Your task to perform on an android device: What's the weather going to be tomorrow? Image 0: 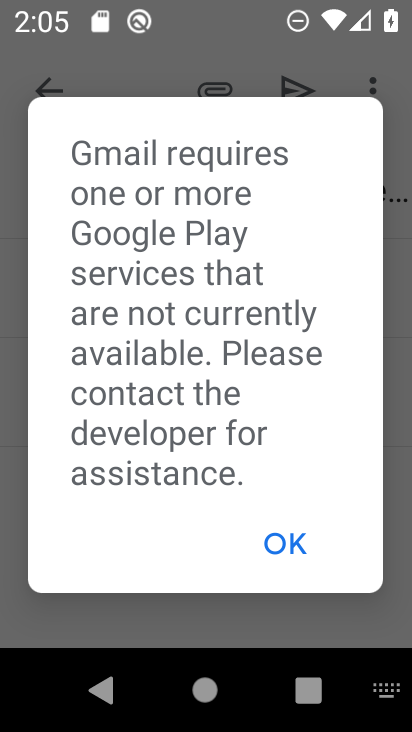
Step 0: click (163, 614)
Your task to perform on an android device: What's the weather going to be tomorrow? Image 1: 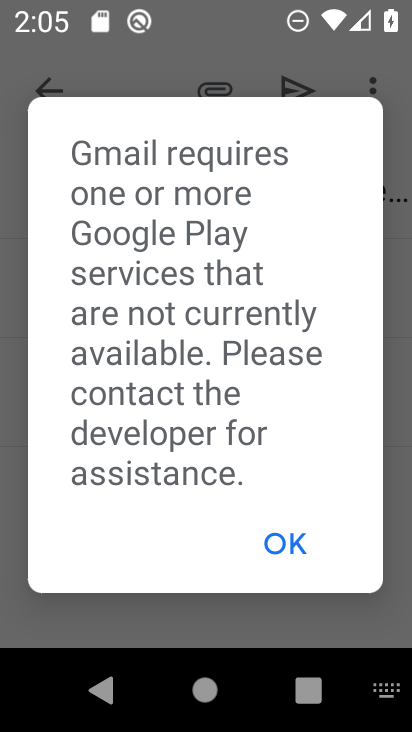
Step 1: press home button
Your task to perform on an android device: What's the weather going to be tomorrow? Image 2: 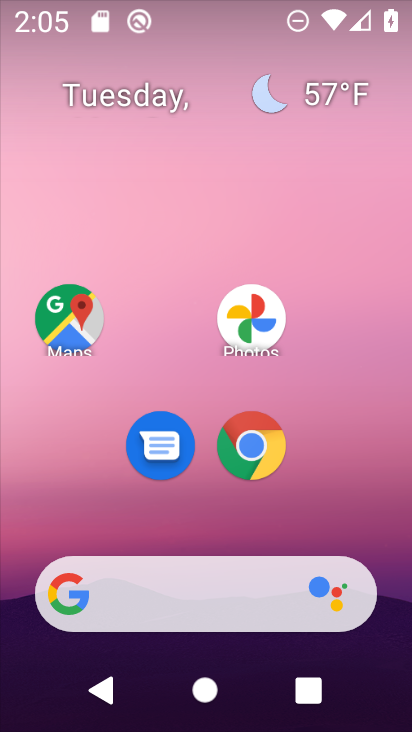
Step 2: click (273, 584)
Your task to perform on an android device: What's the weather going to be tomorrow? Image 3: 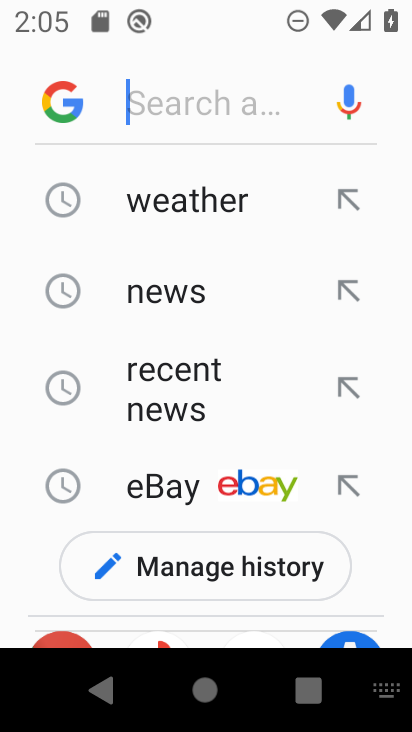
Step 3: click (195, 224)
Your task to perform on an android device: What's the weather going to be tomorrow? Image 4: 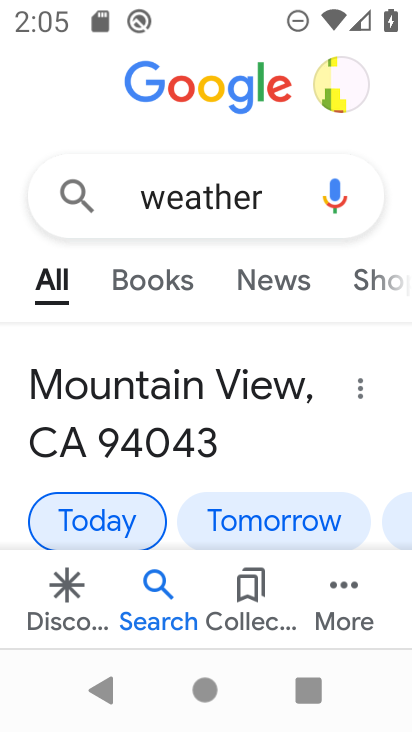
Step 4: click (296, 526)
Your task to perform on an android device: What's the weather going to be tomorrow? Image 5: 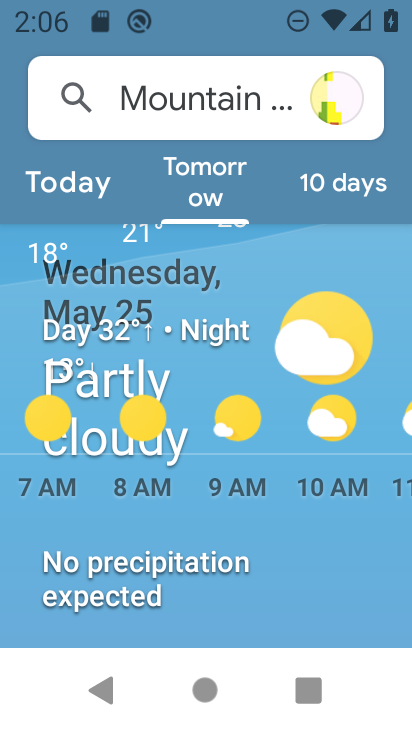
Step 5: task complete